Your task to perform on an android device: Open ESPN.com Image 0: 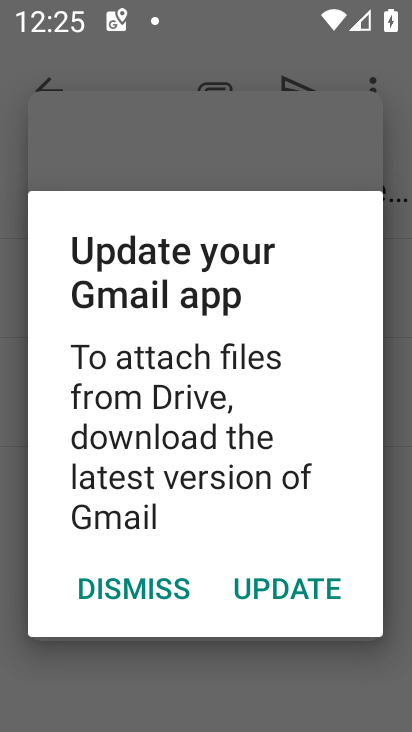
Step 0: drag from (232, 639) to (231, 236)
Your task to perform on an android device: Open ESPN.com Image 1: 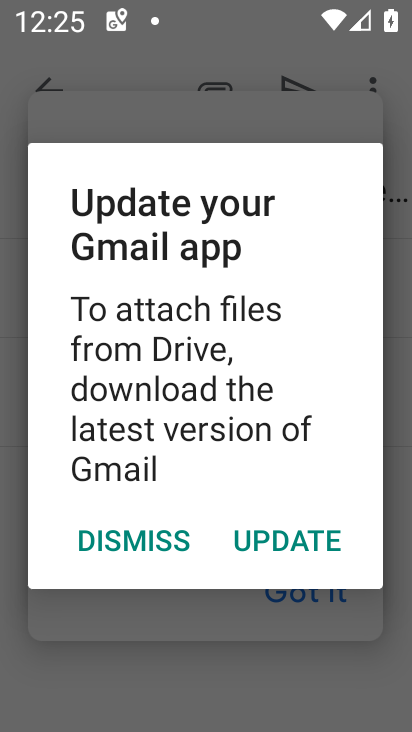
Step 1: press home button
Your task to perform on an android device: Open ESPN.com Image 2: 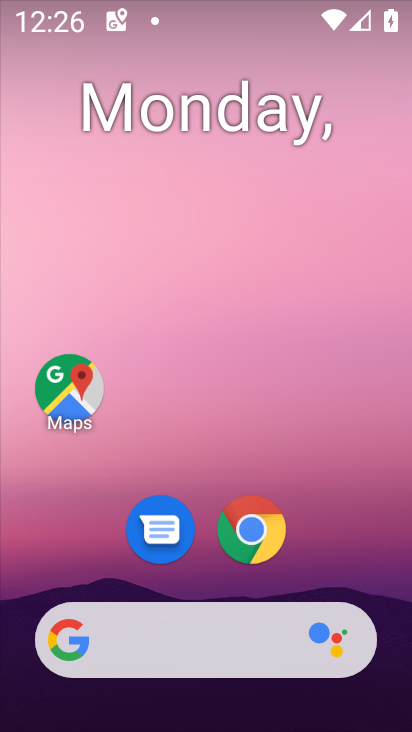
Step 2: click (257, 537)
Your task to perform on an android device: Open ESPN.com Image 3: 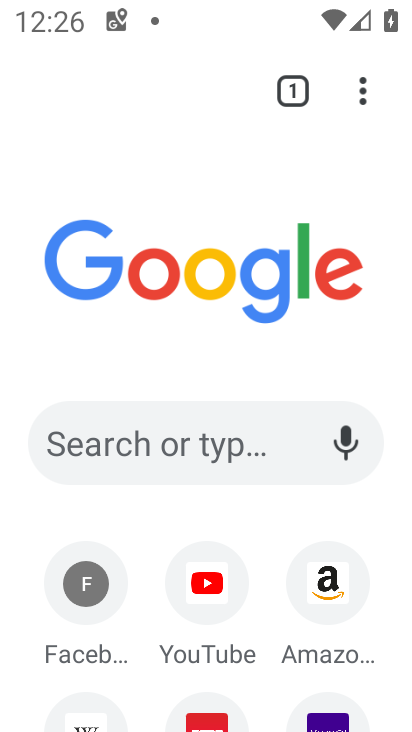
Step 3: click (221, 702)
Your task to perform on an android device: Open ESPN.com Image 4: 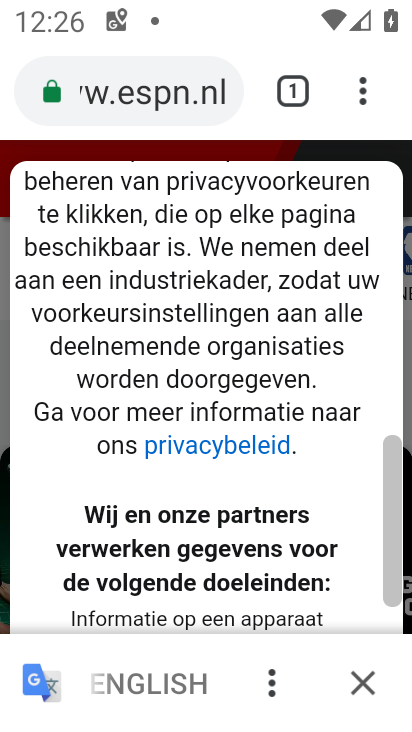
Step 4: task complete